Your task to perform on an android device: Open Yahoo.com Image 0: 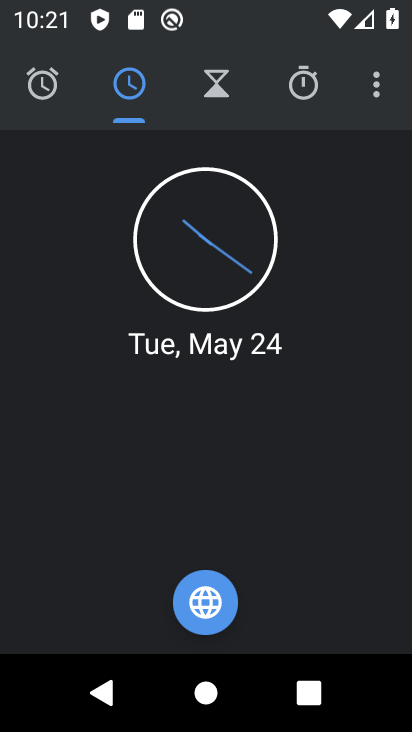
Step 0: press home button
Your task to perform on an android device: Open Yahoo.com Image 1: 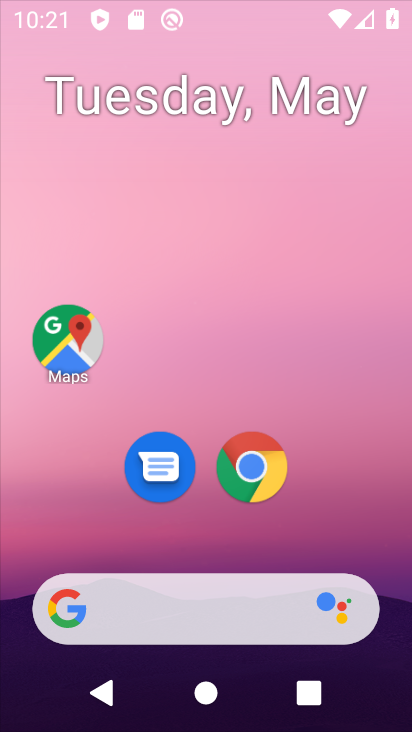
Step 1: drag from (217, 586) to (263, 113)
Your task to perform on an android device: Open Yahoo.com Image 2: 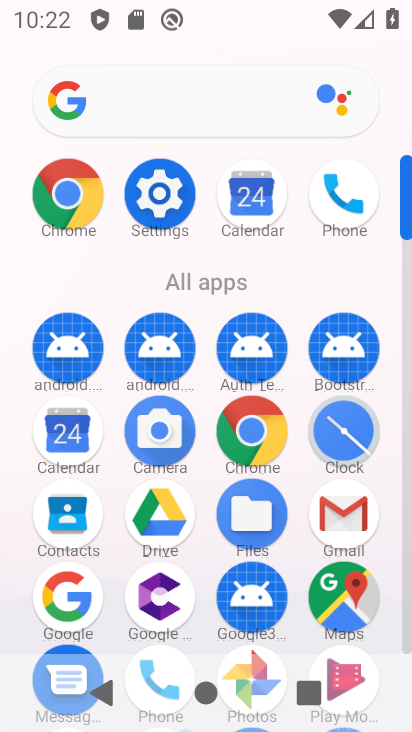
Step 2: click (137, 108)
Your task to perform on an android device: Open Yahoo.com Image 3: 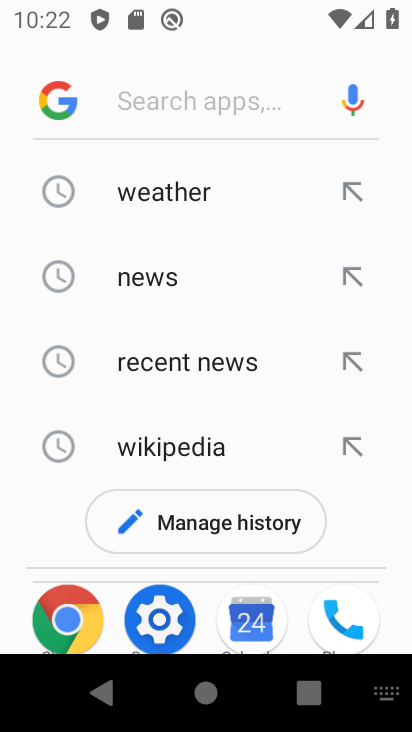
Step 3: type "yahoo.com"
Your task to perform on an android device: Open Yahoo.com Image 4: 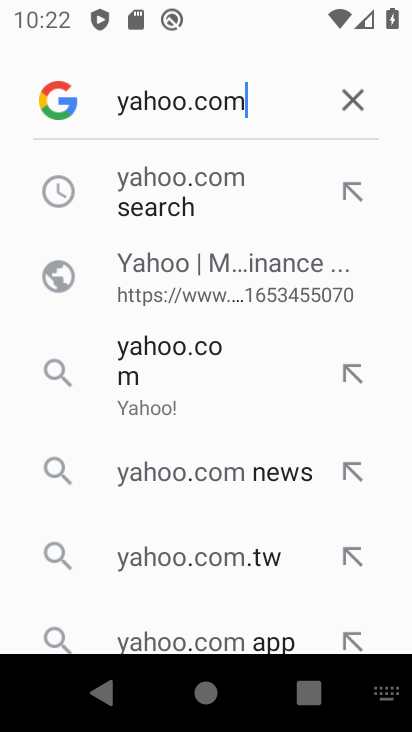
Step 4: click (163, 202)
Your task to perform on an android device: Open Yahoo.com Image 5: 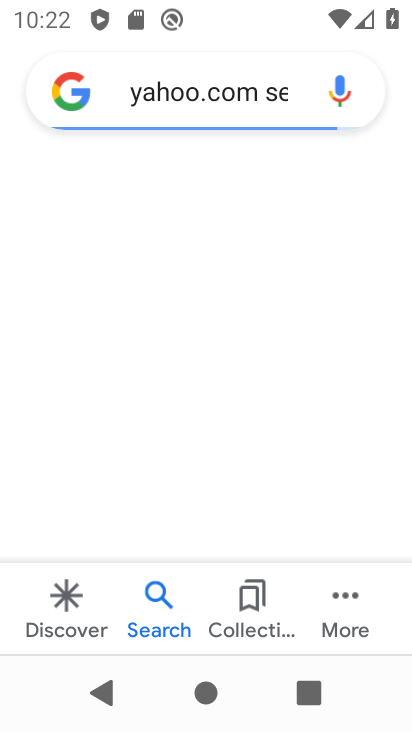
Step 5: drag from (223, 611) to (289, 249)
Your task to perform on an android device: Open Yahoo.com Image 6: 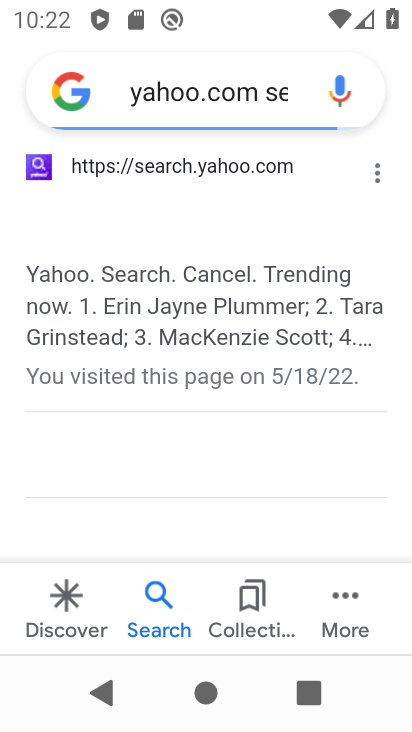
Step 6: click (179, 521)
Your task to perform on an android device: Open Yahoo.com Image 7: 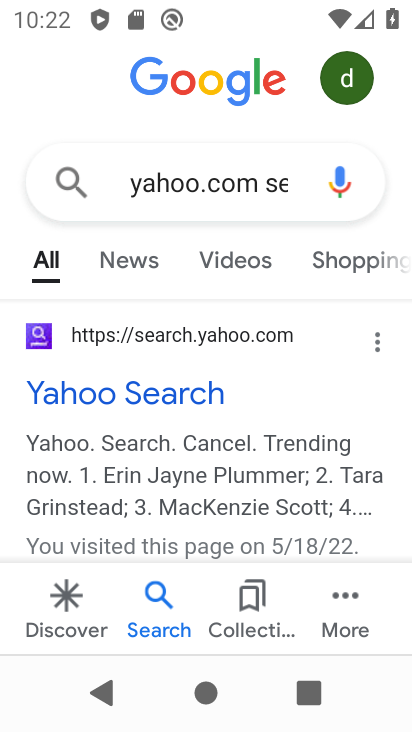
Step 7: click (88, 391)
Your task to perform on an android device: Open Yahoo.com Image 8: 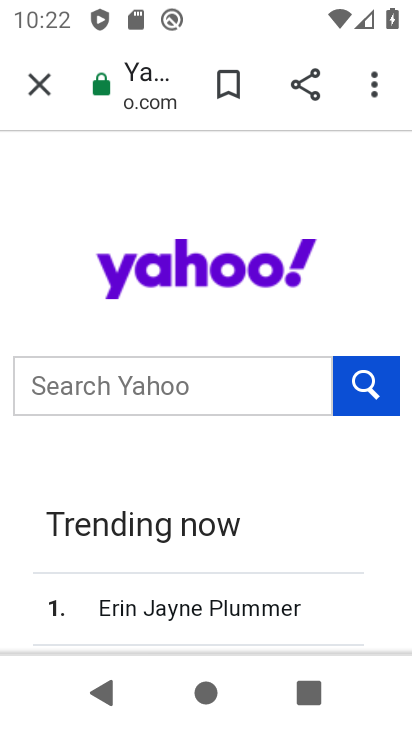
Step 8: task complete